Your task to perform on an android device: Go to accessibility settings Image 0: 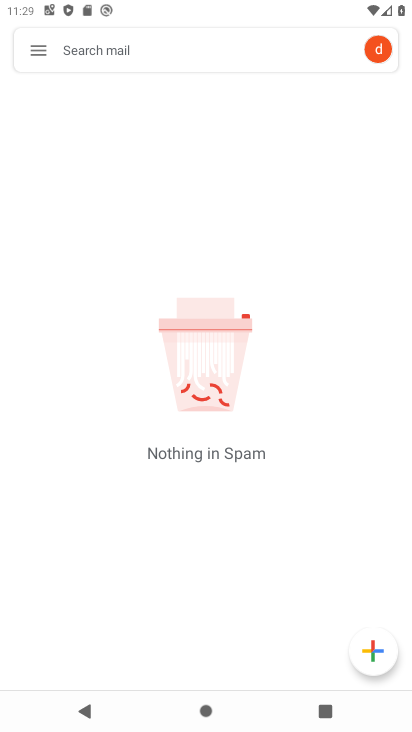
Step 0: press home button
Your task to perform on an android device: Go to accessibility settings Image 1: 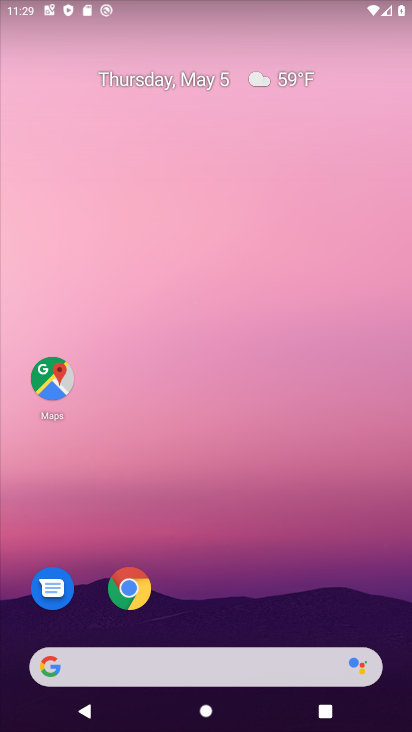
Step 1: drag from (230, 480) to (272, 47)
Your task to perform on an android device: Go to accessibility settings Image 2: 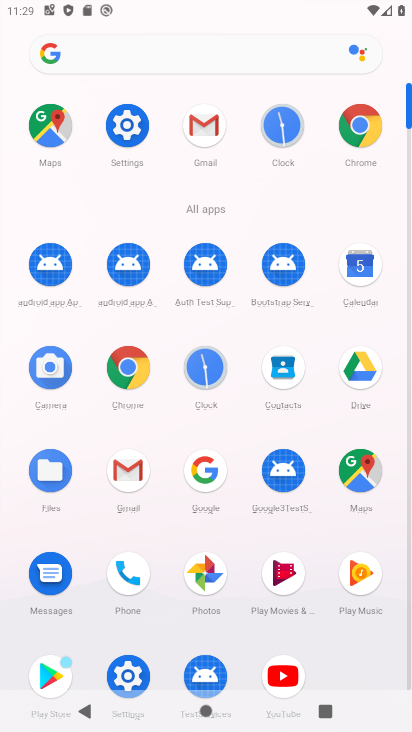
Step 2: click (130, 123)
Your task to perform on an android device: Go to accessibility settings Image 3: 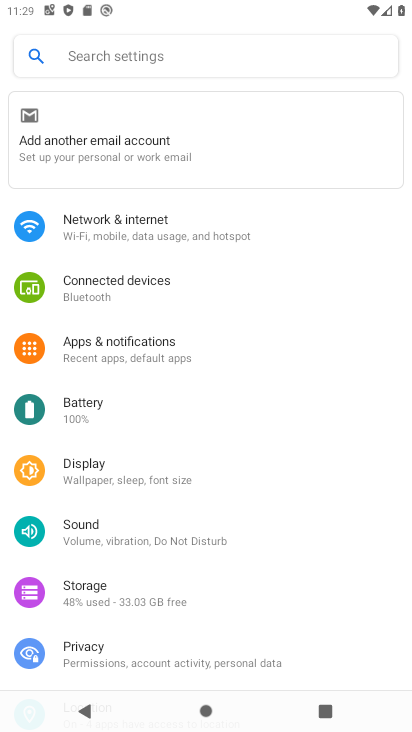
Step 3: drag from (206, 561) to (255, 185)
Your task to perform on an android device: Go to accessibility settings Image 4: 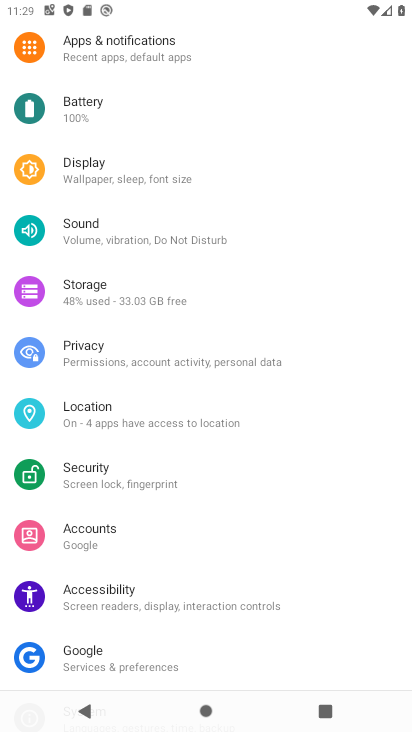
Step 4: click (194, 603)
Your task to perform on an android device: Go to accessibility settings Image 5: 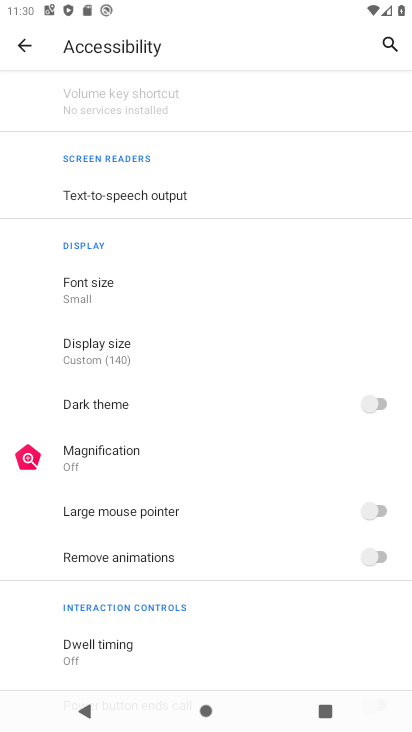
Step 5: task complete